Your task to perform on an android device: Open internet settings Image 0: 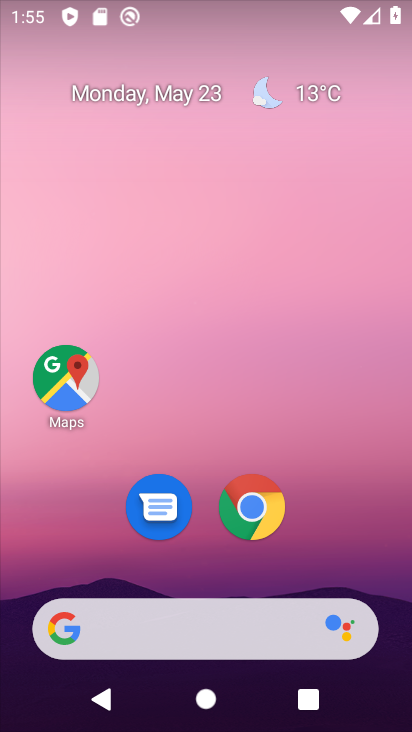
Step 0: drag from (207, 552) to (91, 114)
Your task to perform on an android device: Open internet settings Image 1: 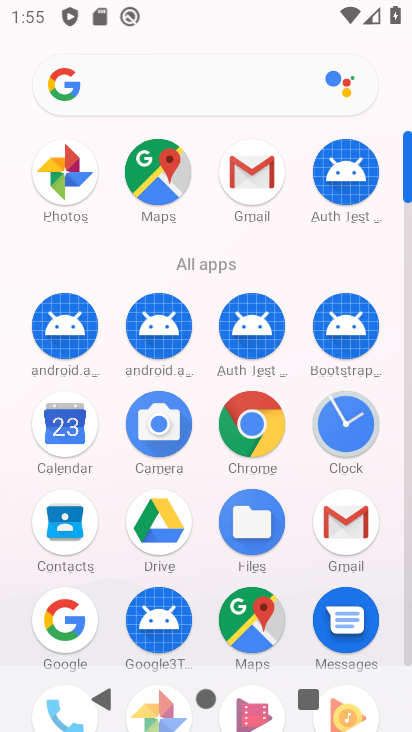
Step 1: drag from (258, 635) to (256, 215)
Your task to perform on an android device: Open internet settings Image 2: 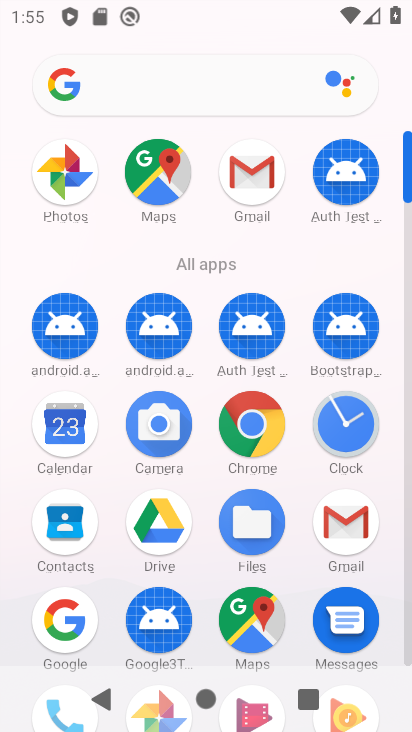
Step 2: drag from (238, 440) to (185, 103)
Your task to perform on an android device: Open internet settings Image 3: 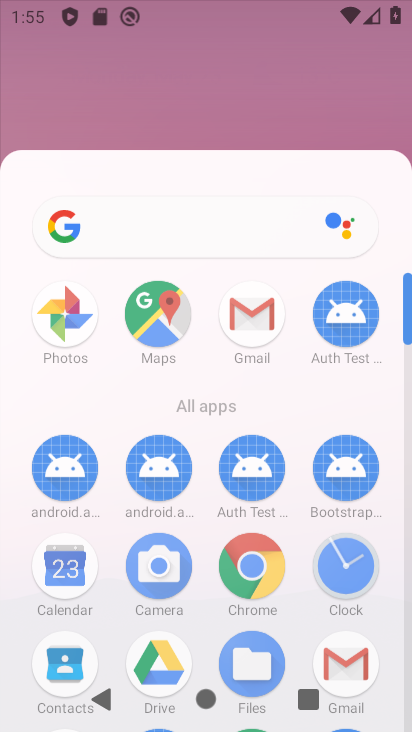
Step 3: drag from (189, 129) to (267, 370)
Your task to perform on an android device: Open internet settings Image 4: 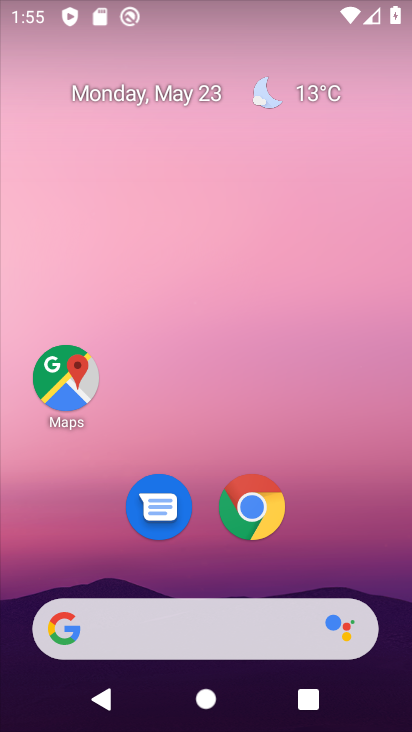
Step 4: click (233, 161)
Your task to perform on an android device: Open internet settings Image 5: 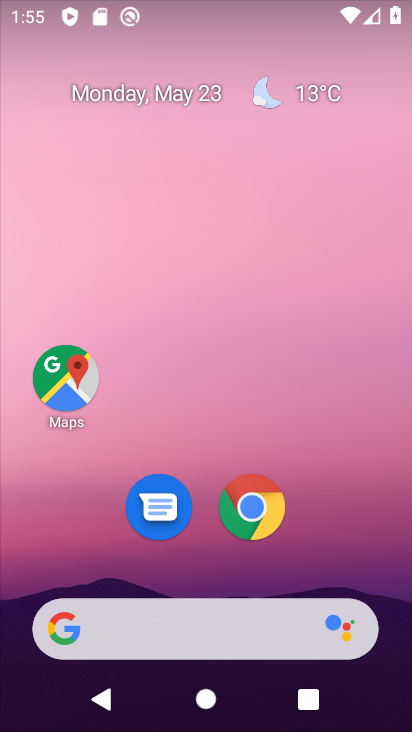
Step 5: drag from (304, 519) to (300, 200)
Your task to perform on an android device: Open internet settings Image 6: 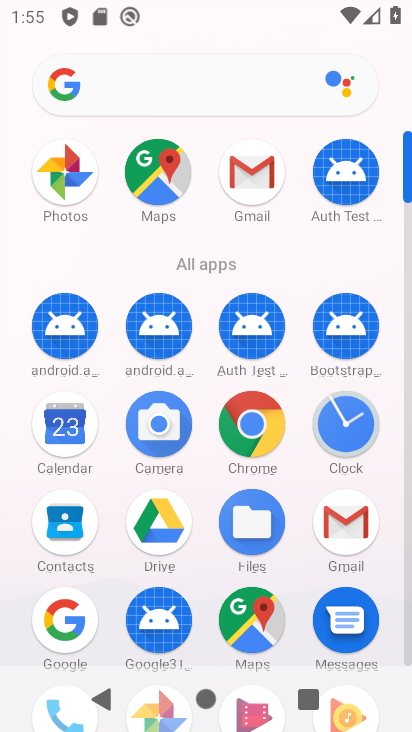
Step 6: drag from (296, 507) to (248, 38)
Your task to perform on an android device: Open internet settings Image 7: 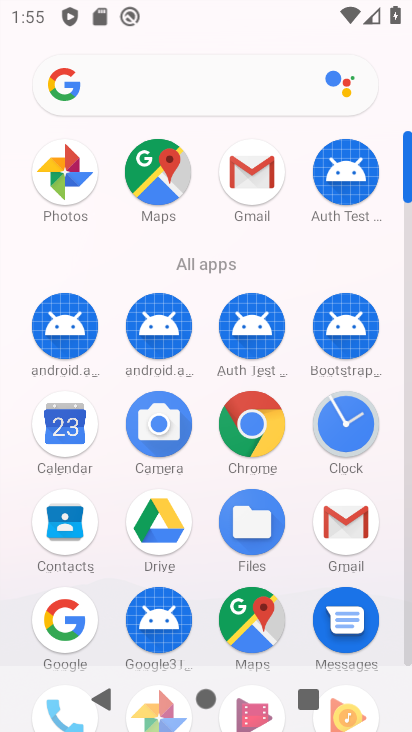
Step 7: click (182, 101)
Your task to perform on an android device: Open internet settings Image 8: 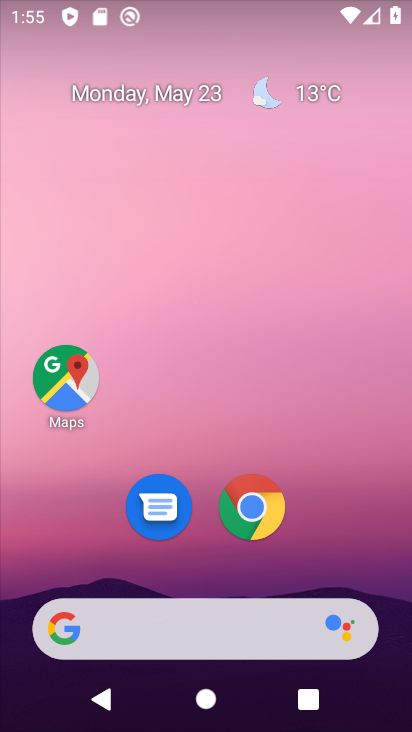
Step 8: drag from (212, 347) to (187, 84)
Your task to perform on an android device: Open internet settings Image 9: 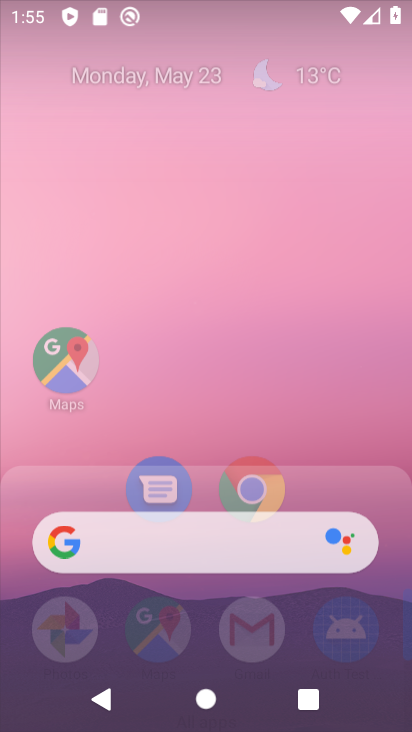
Step 9: drag from (232, 167) to (221, 78)
Your task to perform on an android device: Open internet settings Image 10: 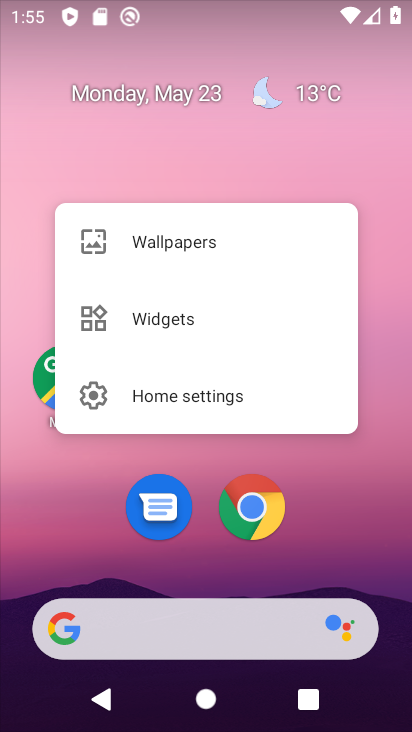
Step 10: click (216, 166)
Your task to perform on an android device: Open internet settings Image 11: 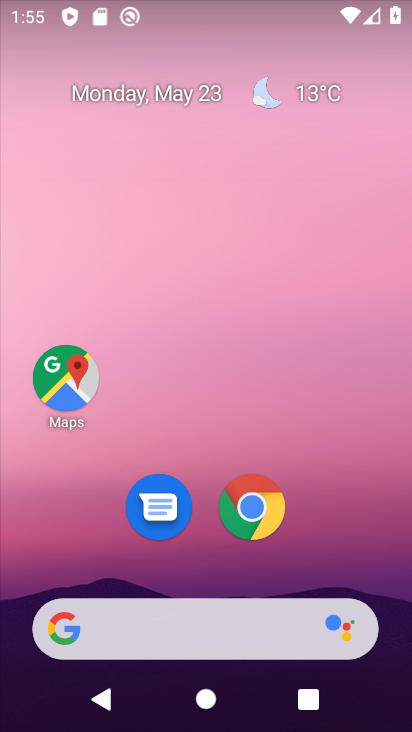
Step 11: task complete